Your task to perform on an android device: Go to Wikipedia Image 0: 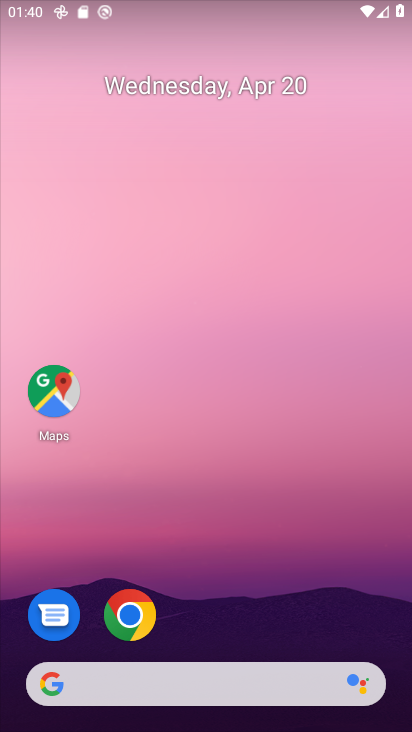
Step 0: drag from (333, 617) to (356, 208)
Your task to perform on an android device: Go to Wikipedia Image 1: 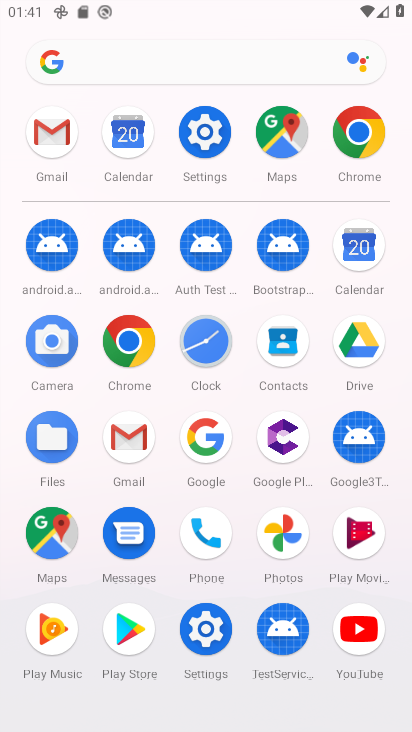
Step 1: click (338, 132)
Your task to perform on an android device: Go to Wikipedia Image 2: 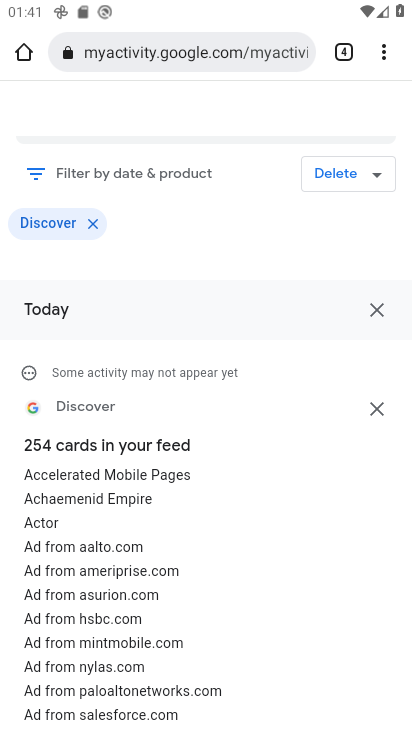
Step 2: click (226, 45)
Your task to perform on an android device: Go to Wikipedia Image 3: 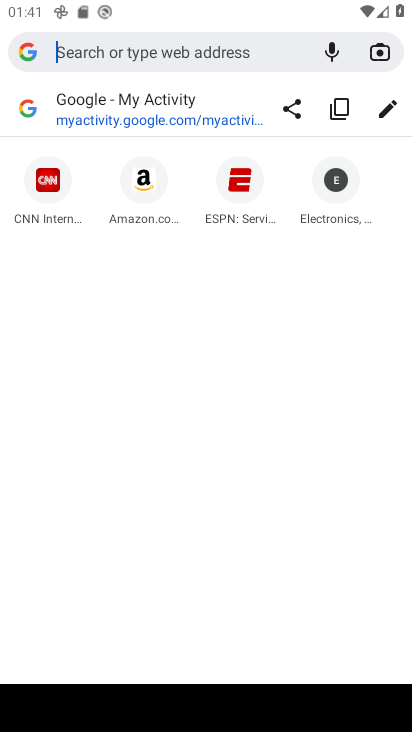
Step 3: type "Wikipedia"
Your task to perform on an android device: Go to Wikipedia Image 4: 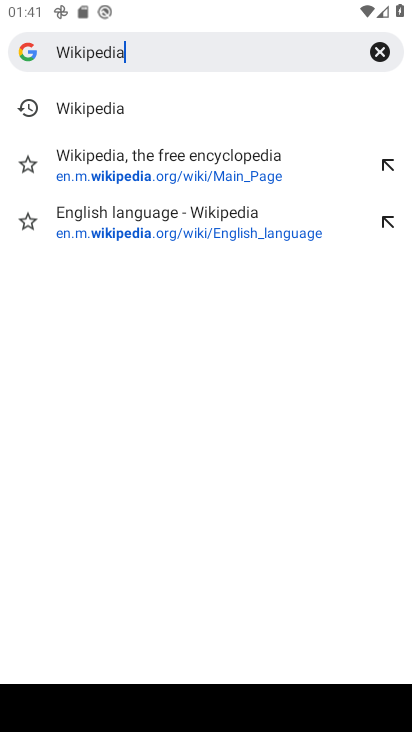
Step 4: click (104, 103)
Your task to perform on an android device: Go to Wikipedia Image 5: 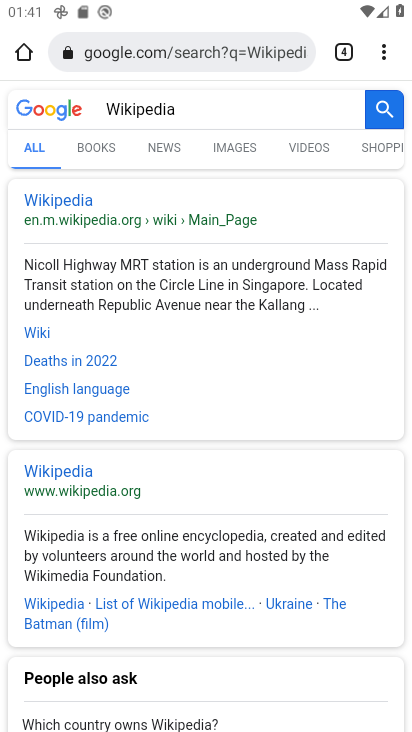
Step 5: task complete